Your task to perform on an android device: Do I have any events tomorrow? Image 0: 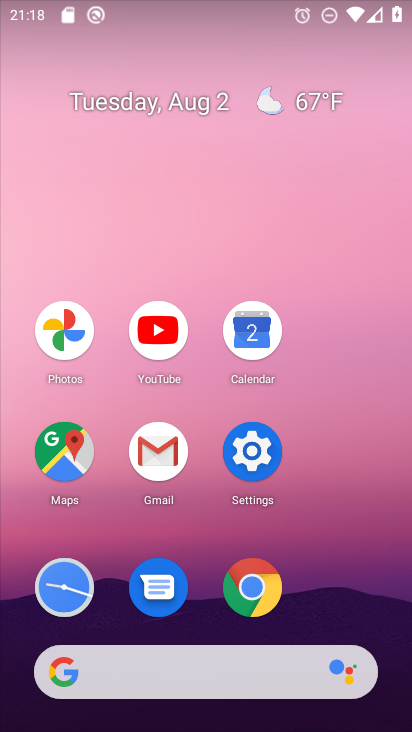
Step 0: click (244, 329)
Your task to perform on an android device: Do I have any events tomorrow? Image 1: 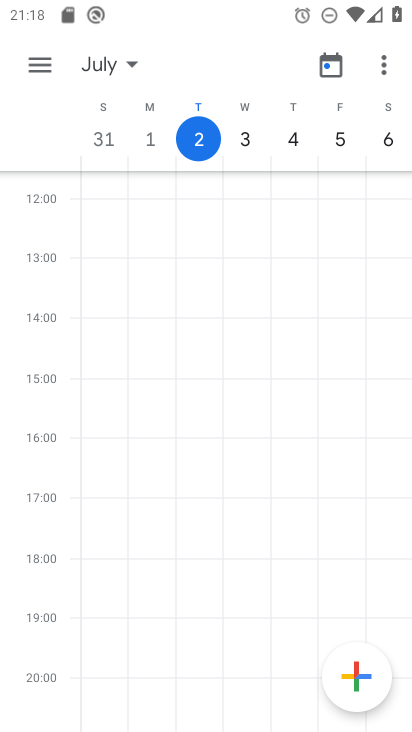
Step 1: click (243, 144)
Your task to perform on an android device: Do I have any events tomorrow? Image 2: 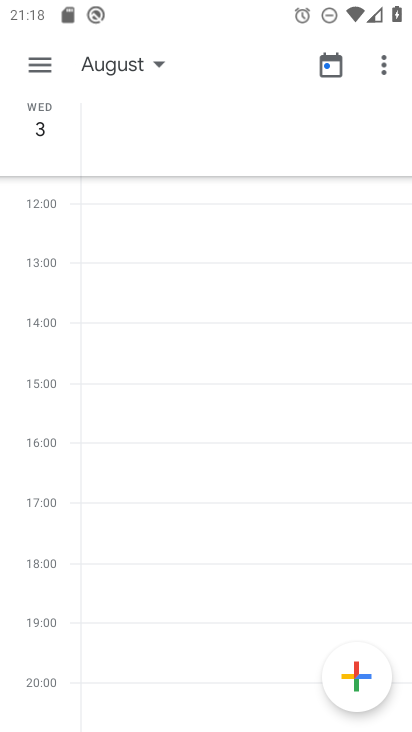
Step 2: task complete